Your task to perform on an android device: turn on priority inbox in the gmail app Image 0: 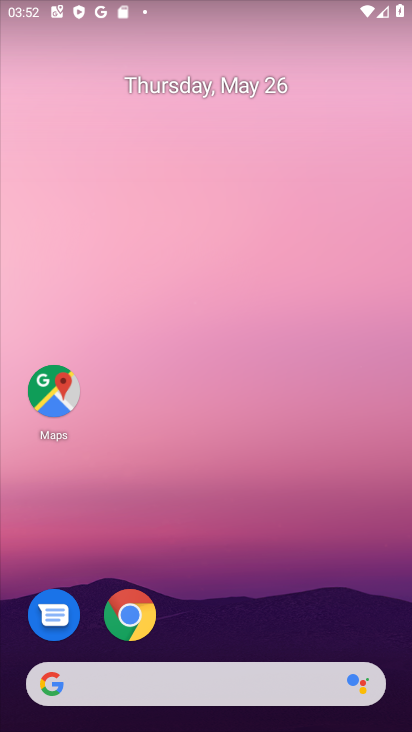
Step 0: drag from (217, 610) to (277, 94)
Your task to perform on an android device: turn on priority inbox in the gmail app Image 1: 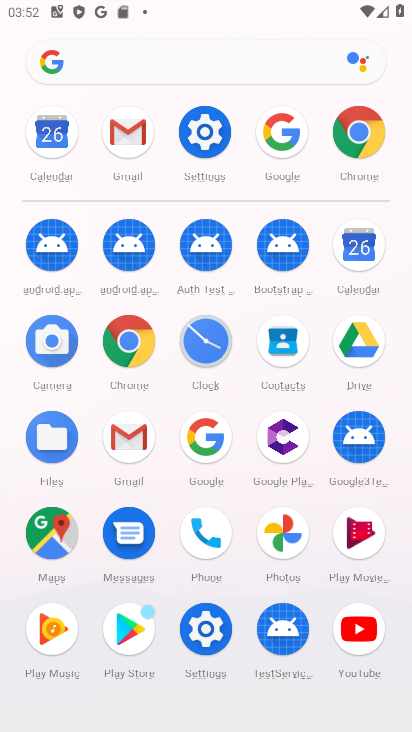
Step 1: click (130, 444)
Your task to perform on an android device: turn on priority inbox in the gmail app Image 2: 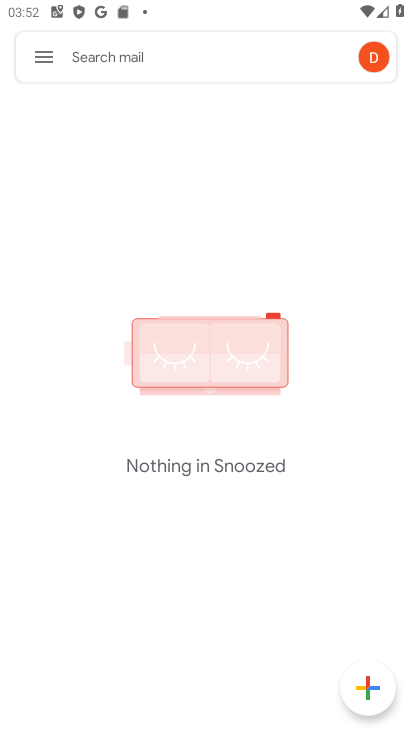
Step 2: click (49, 65)
Your task to perform on an android device: turn on priority inbox in the gmail app Image 3: 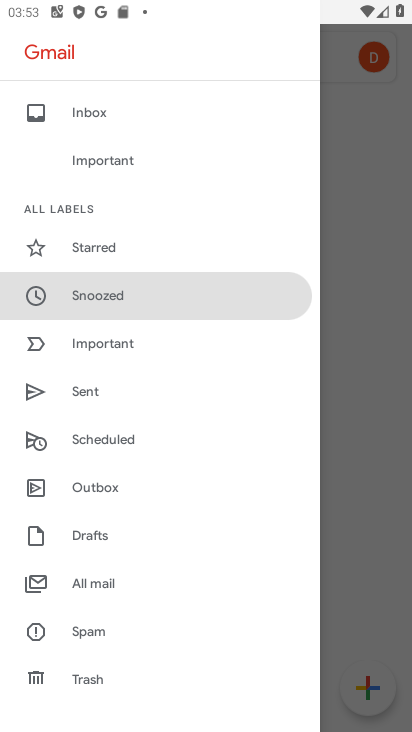
Step 3: drag from (111, 647) to (146, 341)
Your task to perform on an android device: turn on priority inbox in the gmail app Image 4: 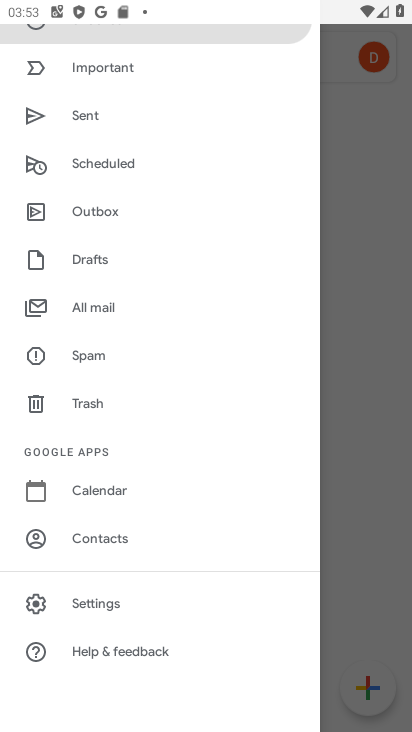
Step 4: click (117, 604)
Your task to perform on an android device: turn on priority inbox in the gmail app Image 5: 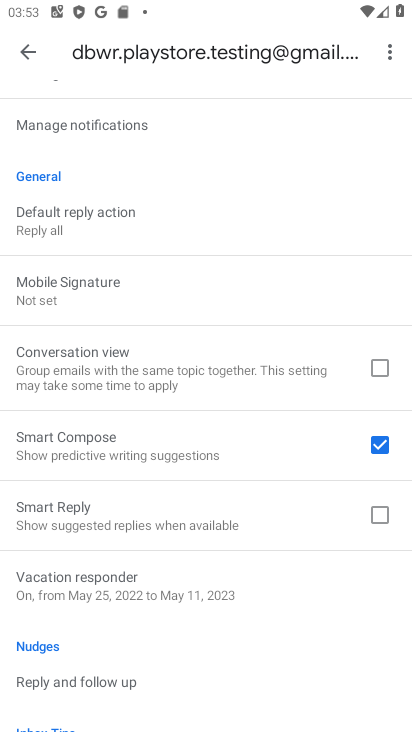
Step 5: drag from (179, 273) to (147, 694)
Your task to perform on an android device: turn on priority inbox in the gmail app Image 6: 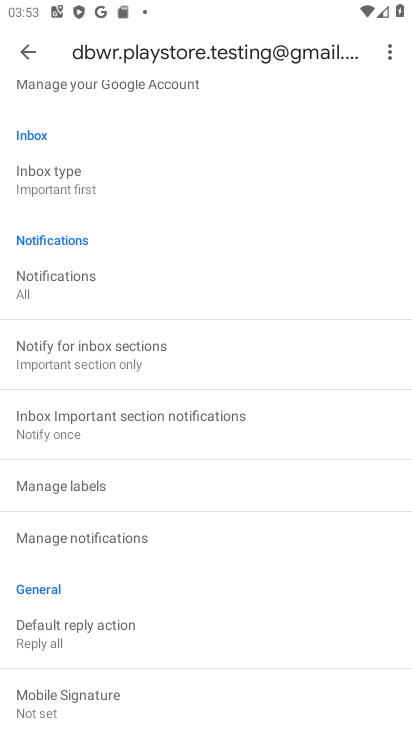
Step 6: click (62, 173)
Your task to perform on an android device: turn on priority inbox in the gmail app Image 7: 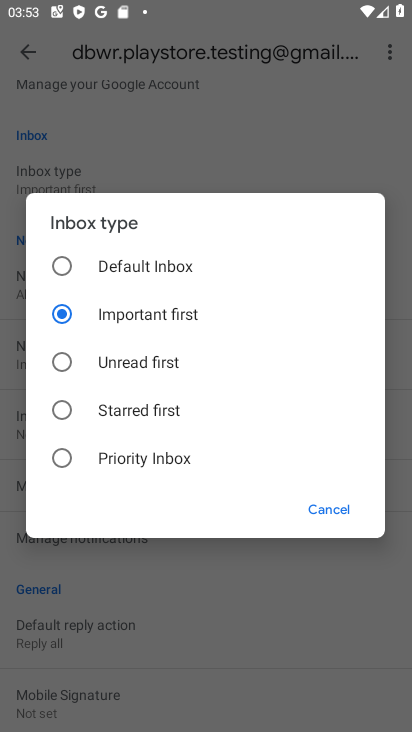
Step 7: click (69, 460)
Your task to perform on an android device: turn on priority inbox in the gmail app Image 8: 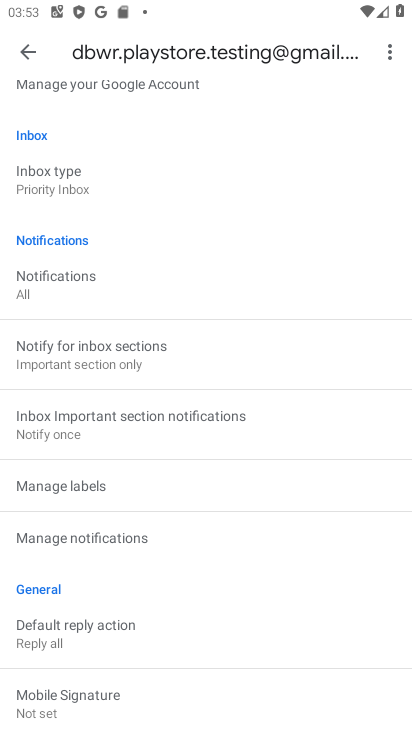
Step 8: task complete